Your task to perform on an android device: Search for sushi restaurants on Maps Image 0: 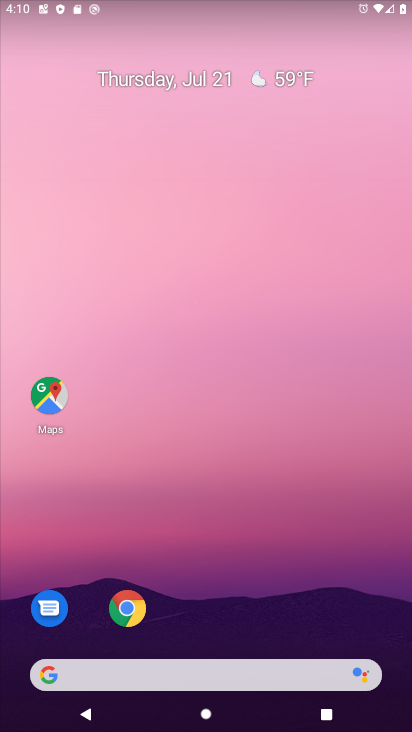
Step 0: drag from (218, 676) to (267, 44)
Your task to perform on an android device: Search for sushi restaurants on Maps Image 1: 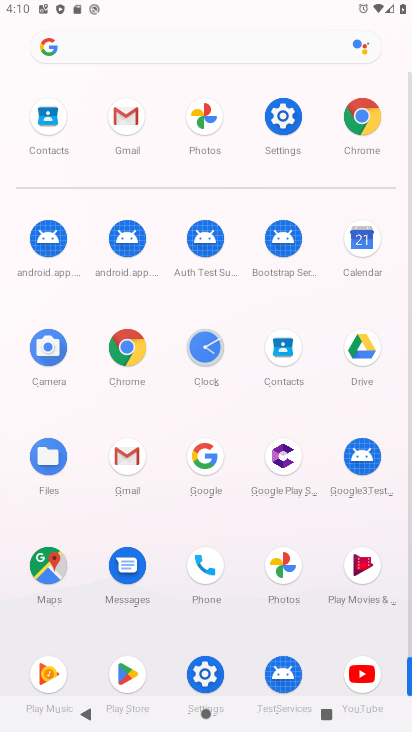
Step 1: click (42, 569)
Your task to perform on an android device: Search for sushi restaurants on Maps Image 2: 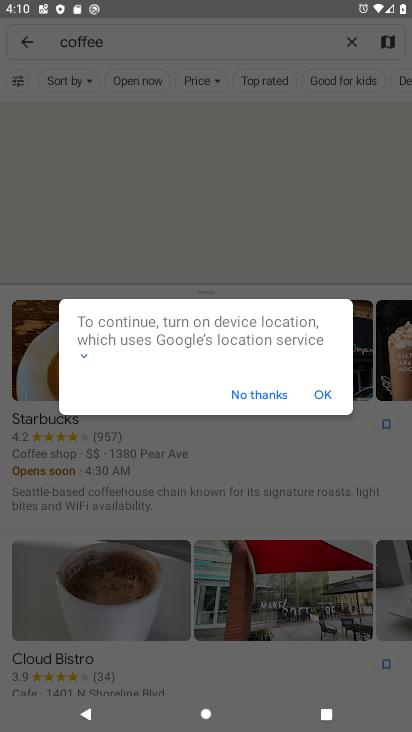
Step 2: click (263, 392)
Your task to perform on an android device: Search for sushi restaurants on Maps Image 3: 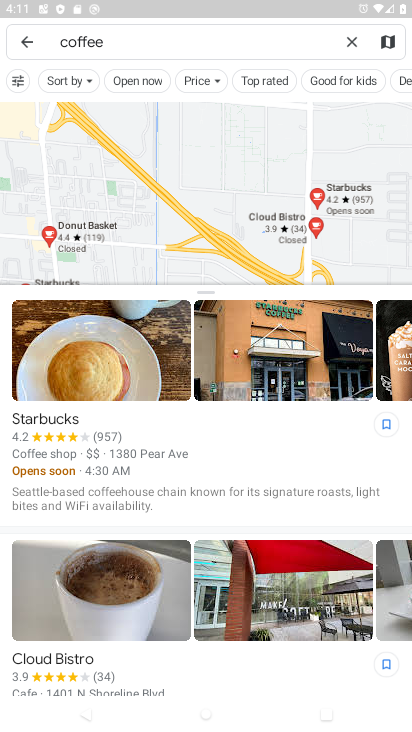
Step 3: click (352, 38)
Your task to perform on an android device: Search for sushi restaurants on Maps Image 4: 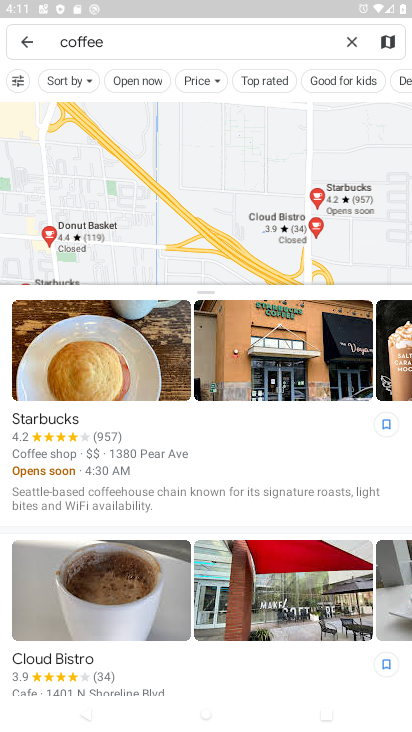
Step 4: click (353, 44)
Your task to perform on an android device: Search for sushi restaurants on Maps Image 5: 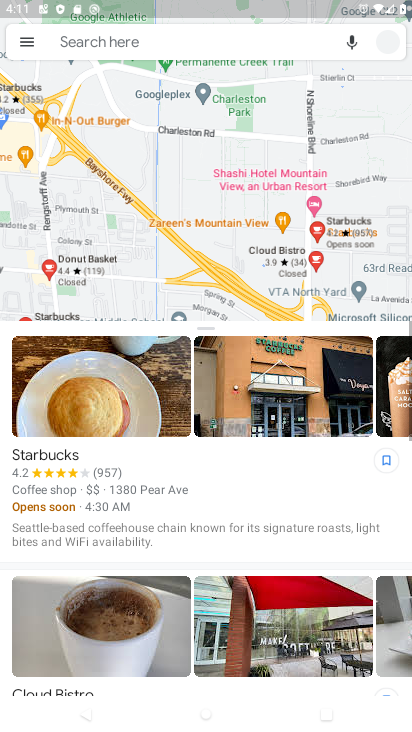
Step 5: click (234, 47)
Your task to perform on an android device: Search for sushi restaurants on Maps Image 6: 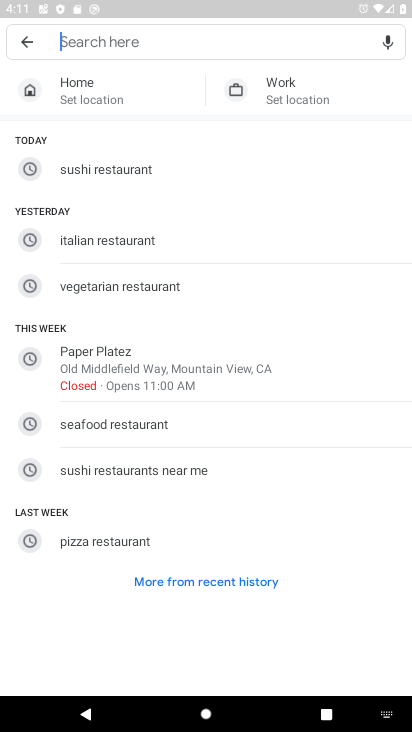
Step 6: click (124, 469)
Your task to perform on an android device: Search for sushi restaurants on Maps Image 7: 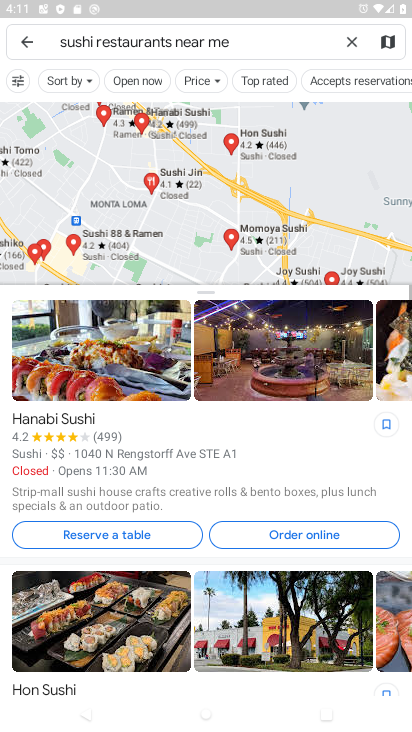
Step 7: task complete